Your task to perform on an android device: What is the news today? Image 0: 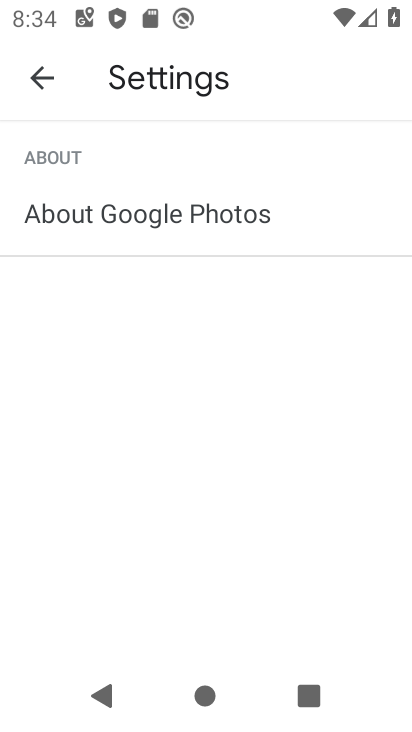
Step 0: press back button
Your task to perform on an android device: What is the news today? Image 1: 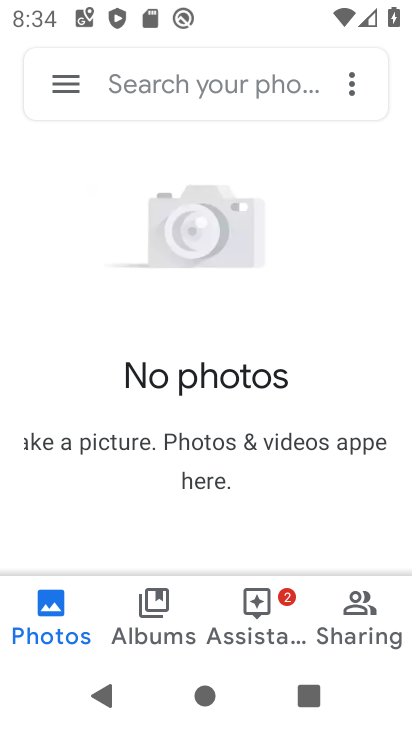
Step 1: press back button
Your task to perform on an android device: What is the news today? Image 2: 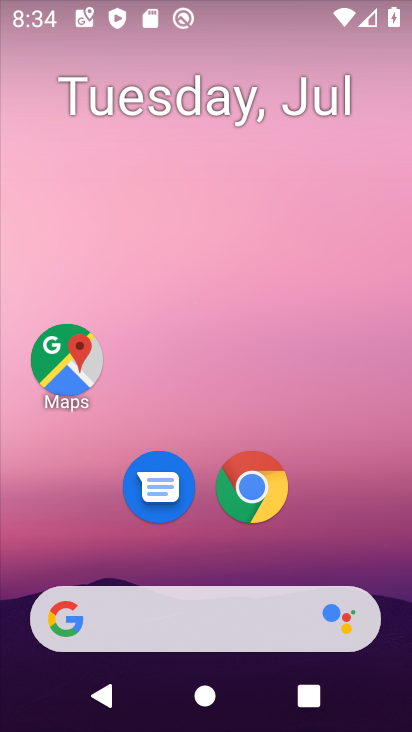
Step 2: click (126, 615)
Your task to perform on an android device: What is the news today? Image 3: 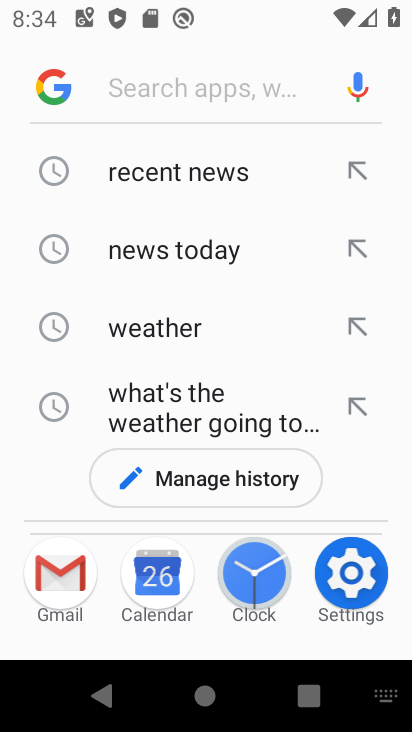
Step 3: click (208, 247)
Your task to perform on an android device: What is the news today? Image 4: 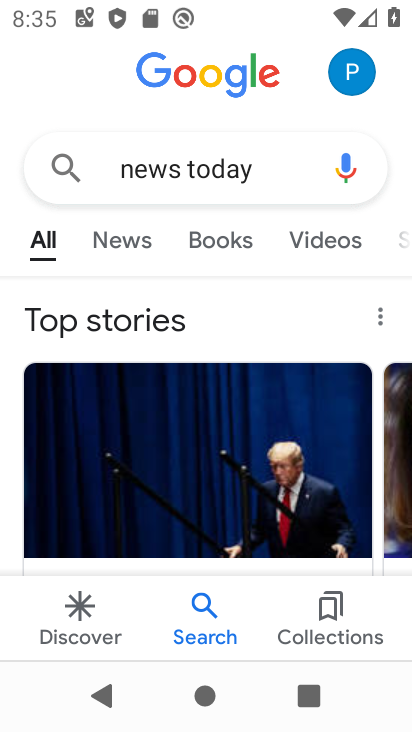
Step 4: task complete